Your task to perform on an android device: Open settings on Google Maps Image 0: 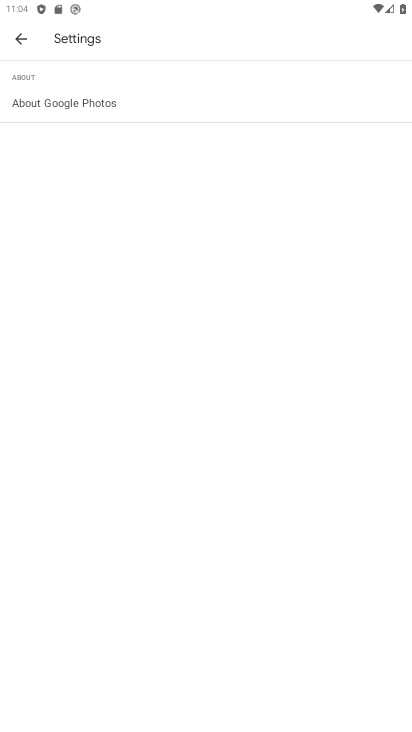
Step 0: press home button
Your task to perform on an android device: Open settings on Google Maps Image 1: 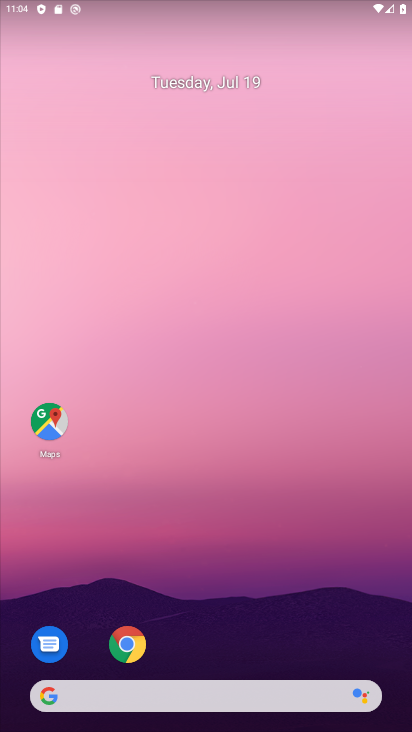
Step 1: drag from (193, 662) to (310, 101)
Your task to perform on an android device: Open settings on Google Maps Image 2: 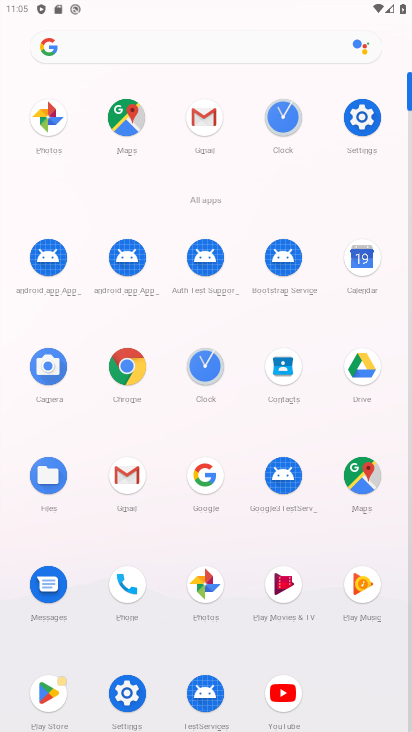
Step 2: click (375, 466)
Your task to perform on an android device: Open settings on Google Maps Image 3: 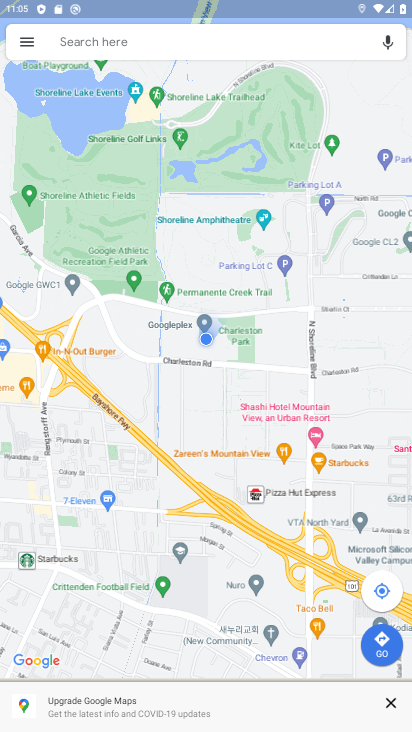
Step 3: click (36, 48)
Your task to perform on an android device: Open settings on Google Maps Image 4: 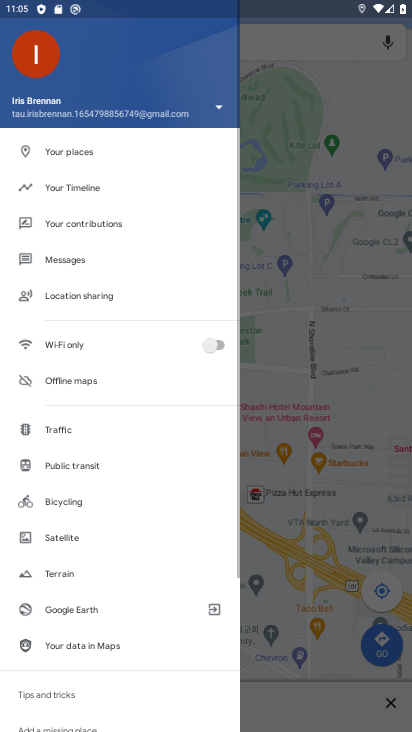
Step 4: drag from (113, 621) to (147, 258)
Your task to perform on an android device: Open settings on Google Maps Image 5: 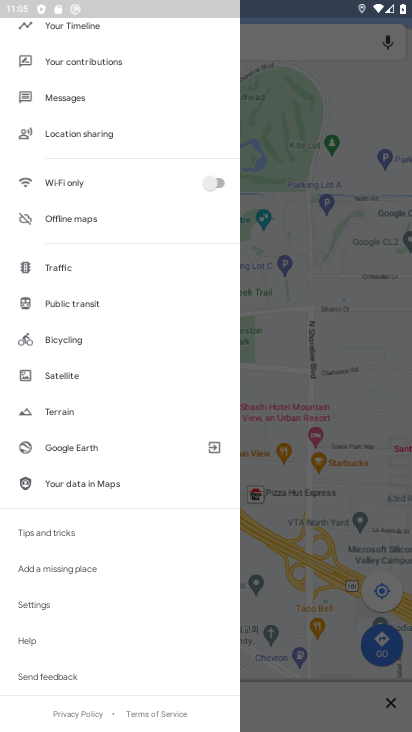
Step 5: click (74, 610)
Your task to perform on an android device: Open settings on Google Maps Image 6: 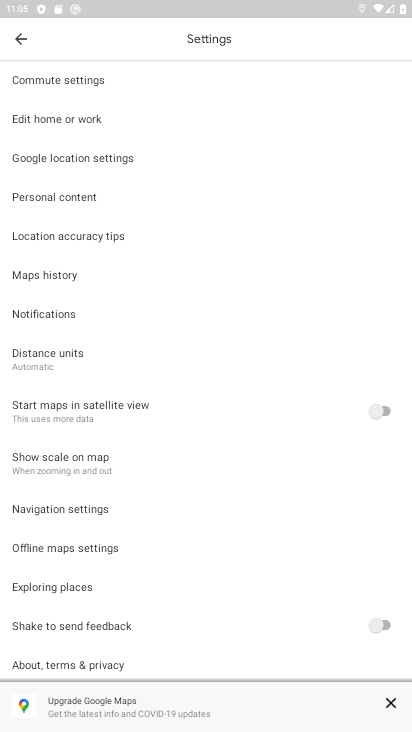
Step 6: task complete